Your task to perform on an android device: Go to display settings Image 0: 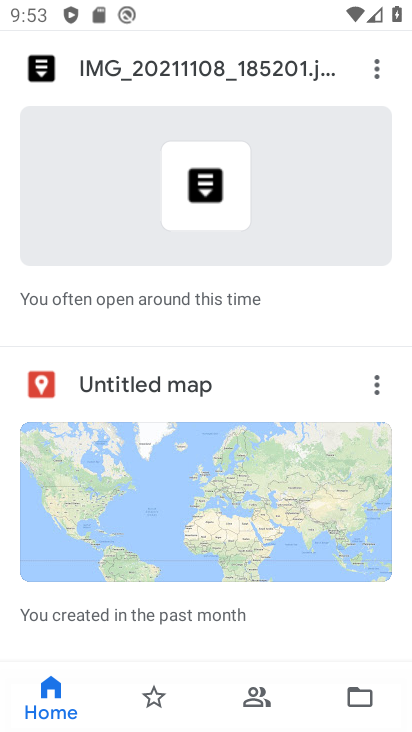
Step 0: press home button
Your task to perform on an android device: Go to display settings Image 1: 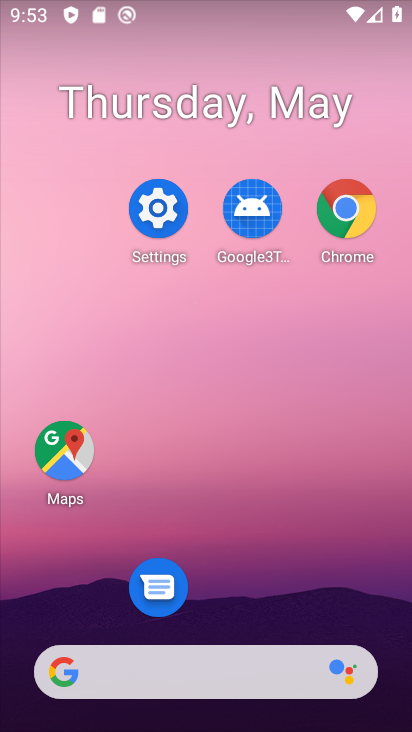
Step 1: click (301, 123)
Your task to perform on an android device: Go to display settings Image 2: 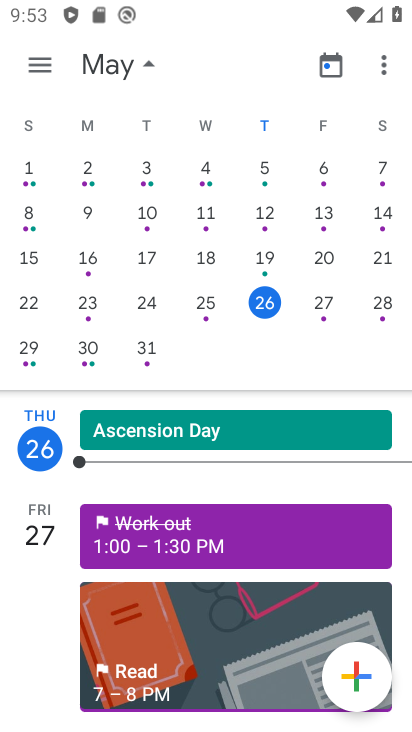
Step 2: press home button
Your task to perform on an android device: Go to display settings Image 3: 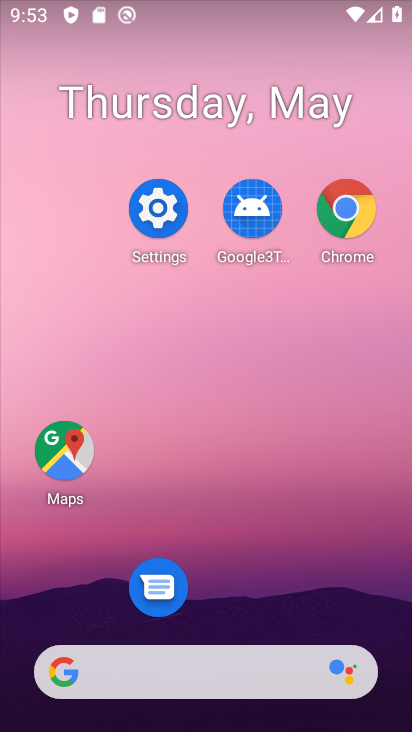
Step 3: click (138, 228)
Your task to perform on an android device: Go to display settings Image 4: 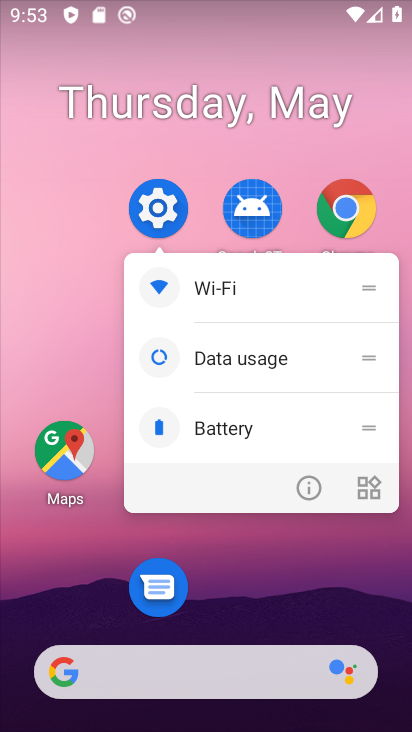
Step 4: click (152, 217)
Your task to perform on an android device: Go to display settings Image 5: 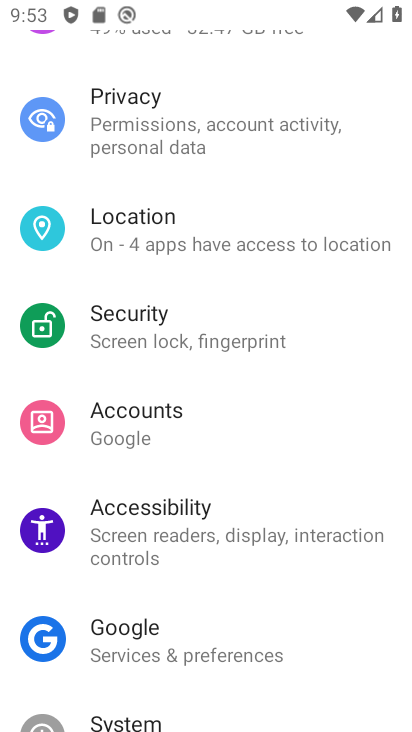
Step 5: drag from (163, 227) to (194, 699)
Your task to perform on an android device: Go to display settings Image 6: 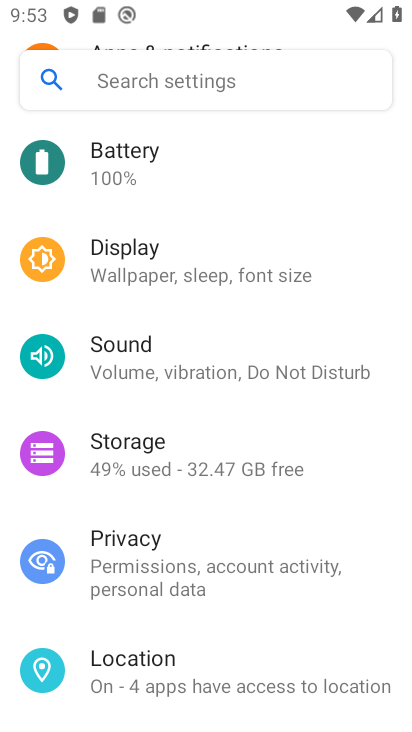
Step 6: click (196, 247)
Your task to perform on an android device: Go to display settings Image 7: 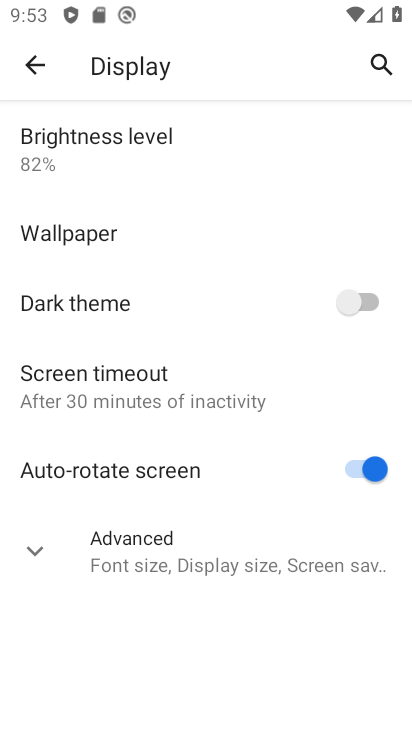
Step 7: task complete